Your task to perform on an android device: toggle pop-ups in chrome Image 0: 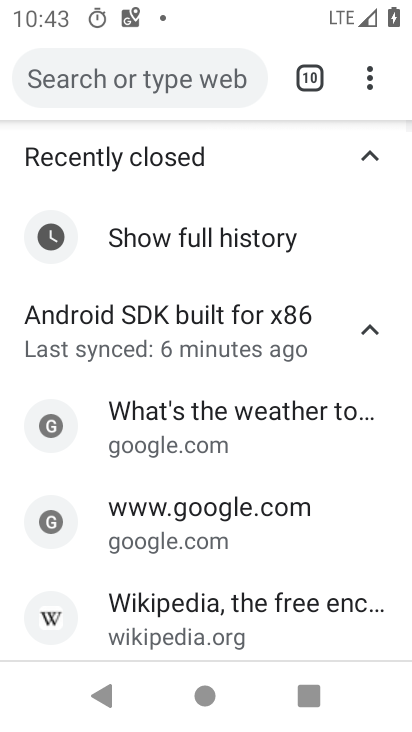
Step 0: press home button
Your task to perform on an android device: toggle pop-ups in chrome Image 1: 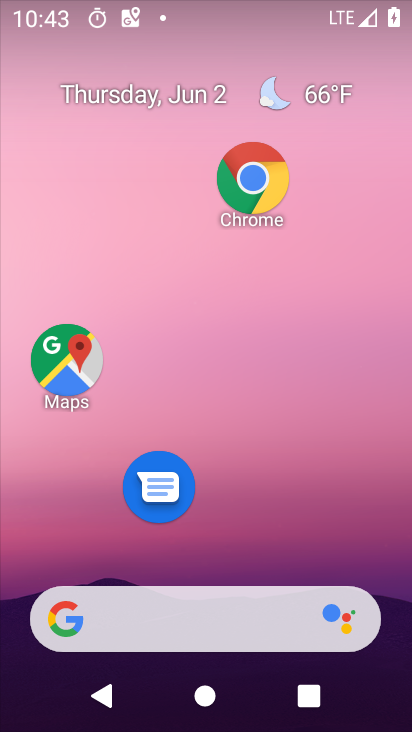
Step 1: click (251, 178)
Your task to perform on an android device: toggle pop-ups in chrome Image 2: 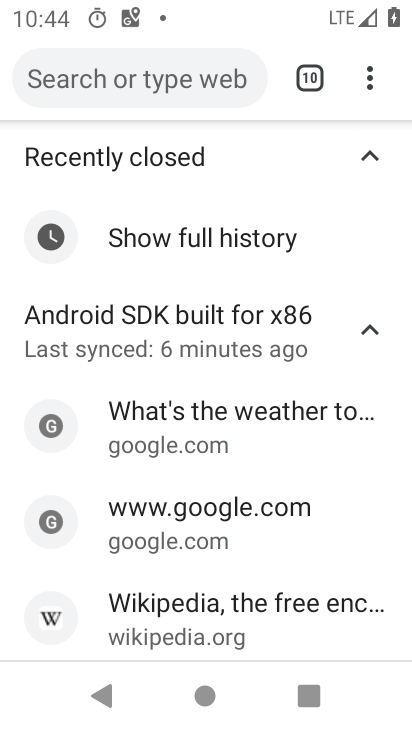
Step 2: click (370, 89)
Your task to perform on an android device: toggle pop-ups in chrome Image 3: 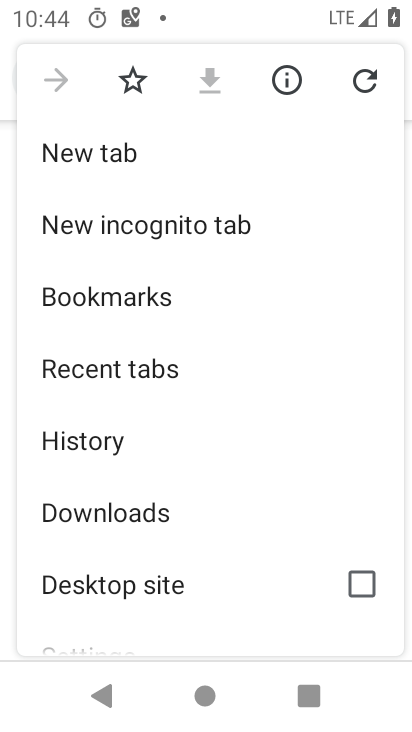
Step 3: drag from (127, 613) to (135, 143)
Your task to perform on an android device: toggle pop-ups in chrome Image 4: 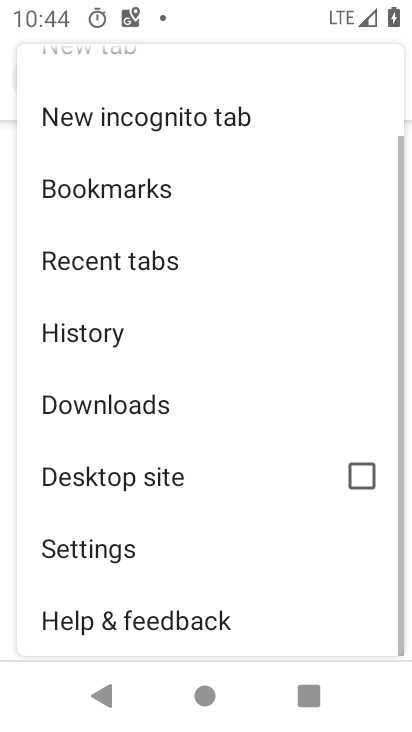
Step 4: click (90, 546)
Your task to perform on an android device: toggle pop-ups in chrome Image 5: 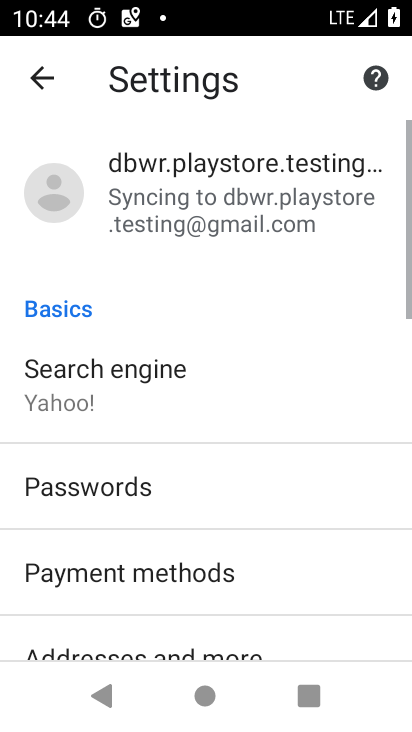
Step 5: drag from (143, 632) to (163, 155)
Your task to perform on an android device: toggle pop-ups in chrome Image 6: 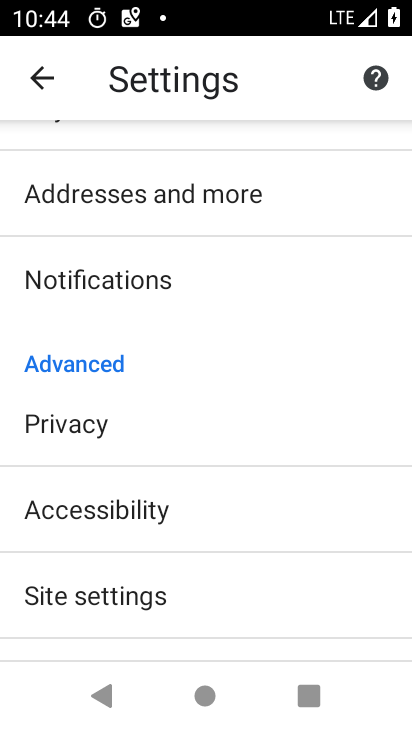
Step 6: drag from (123, 619) to (160, 213)
Your task to perform on an android device: toggle pop-ups in chrome Image 7: 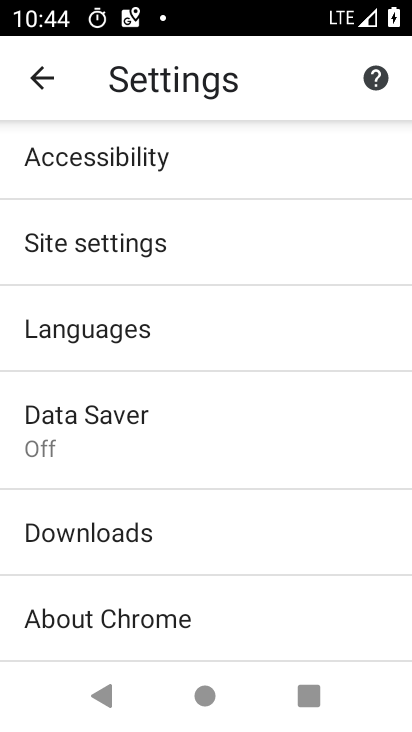
Step 7: click (70, 241)
Your task to perform on an android device: toggle pop-ups in chrome Image 8: 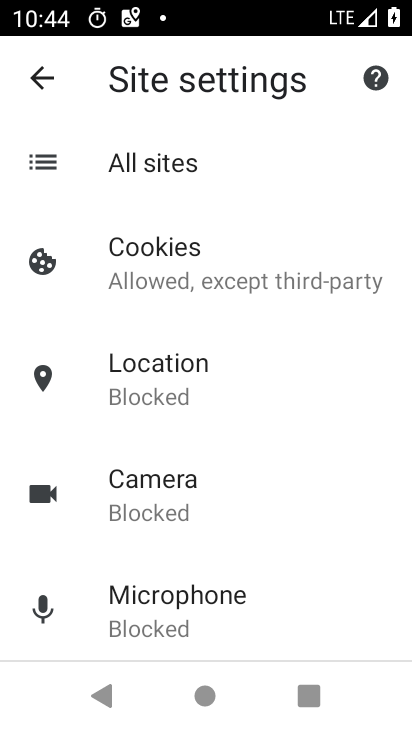
Step 8: drag from (182, 629) to (180, 207)
Your task to perform on an android device: toggle pop-ups in chrome Image 9: 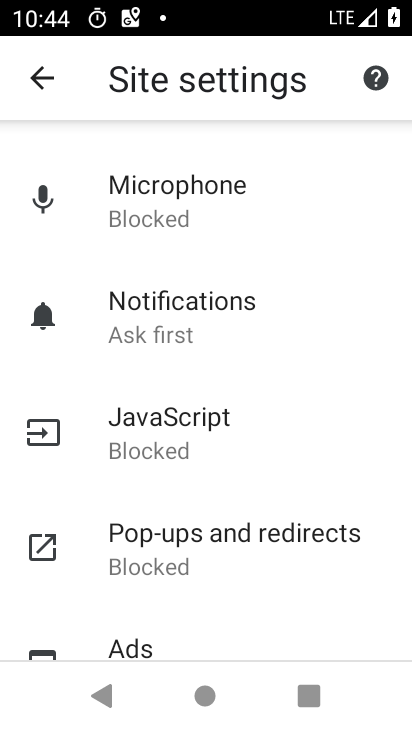
Step 9: click (202, 536)
Your task to perform on an android device: toggle pop-ups in chrome Image 10: 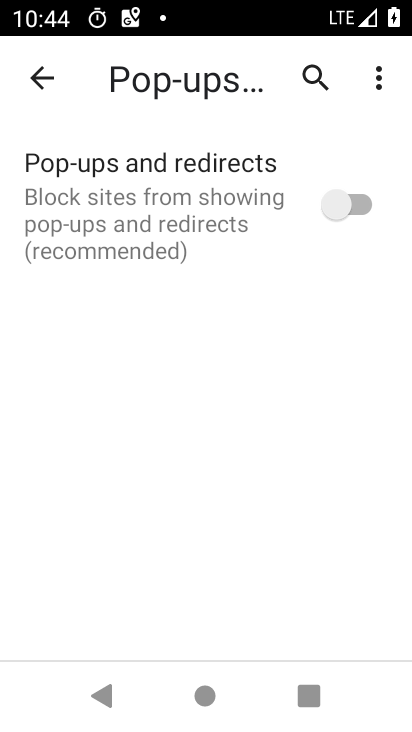
Step 10: click (360, 196)
Your task to perform on an android device: toggle pop-ups in chrome Image 11: 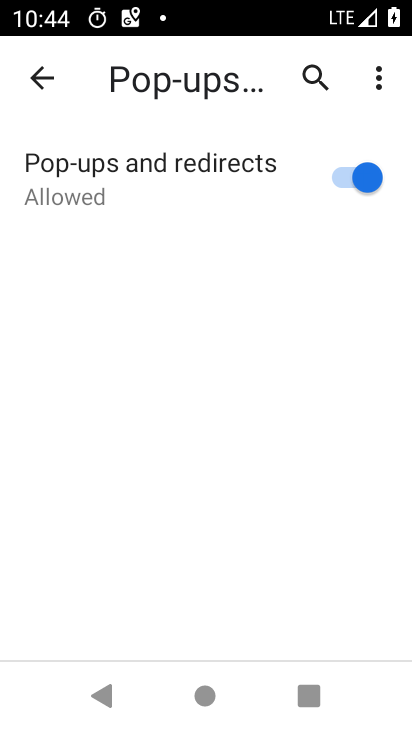
Step 11: task complete